Your task to perform on an android device: Open ESPN.com Image 0: 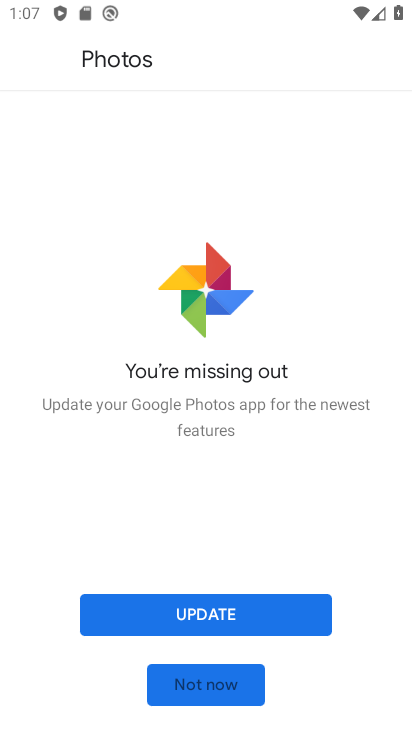
Step 0: press home button
Your task to perform on an android device: Open ESPN.com Image 1: 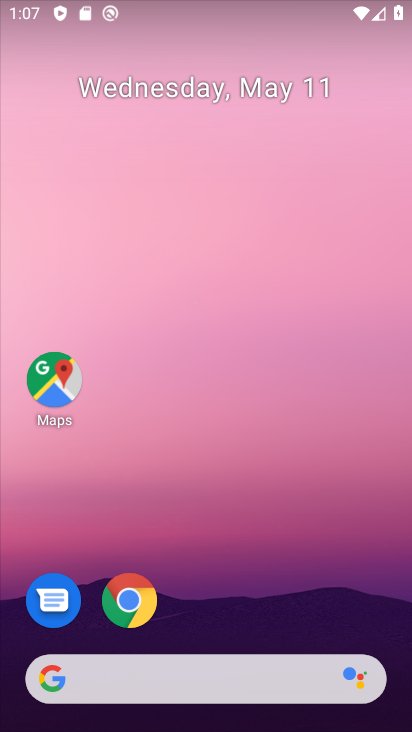
Step 1: drag from (226, 543) to (248, 179)
Your task to perform on an android device: Open ESPN.com Image 2: 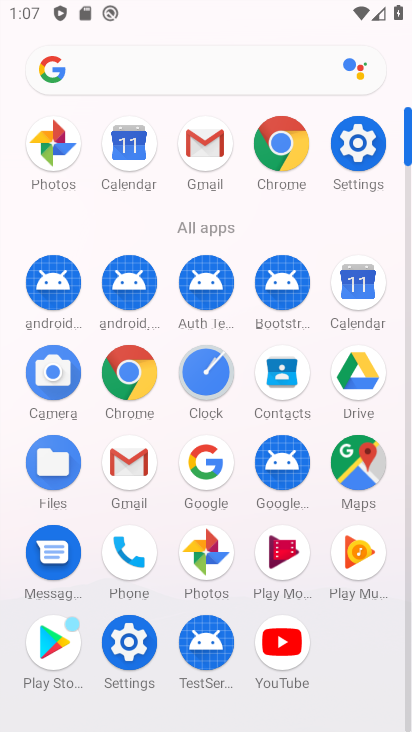
Step 2: click (276, 131)
Your task to perform on an android device: Open ESPN.com Image 3: 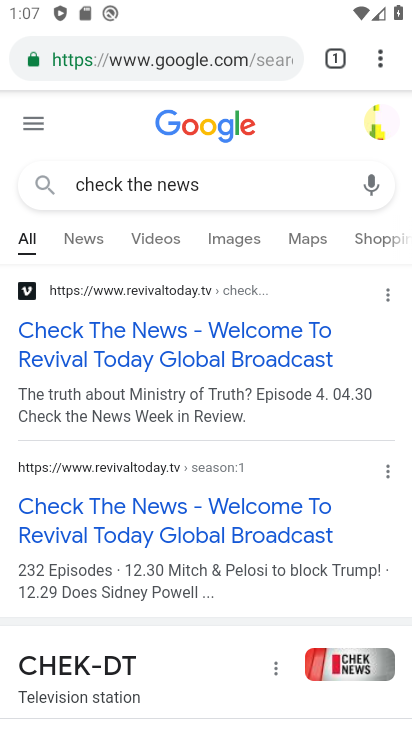
Step 3: click (358, 53)
Your task to perform on an android device: Open ESPN.com Image 4: 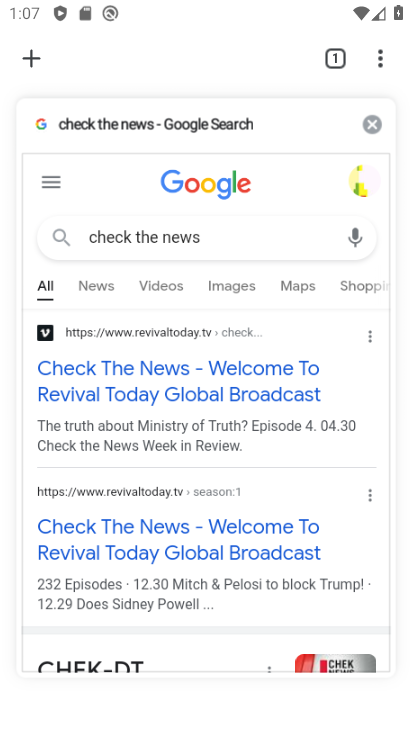
Step 4: click (38, 58)
Your task to perform on an android device: Open ESPN.com Image 5: 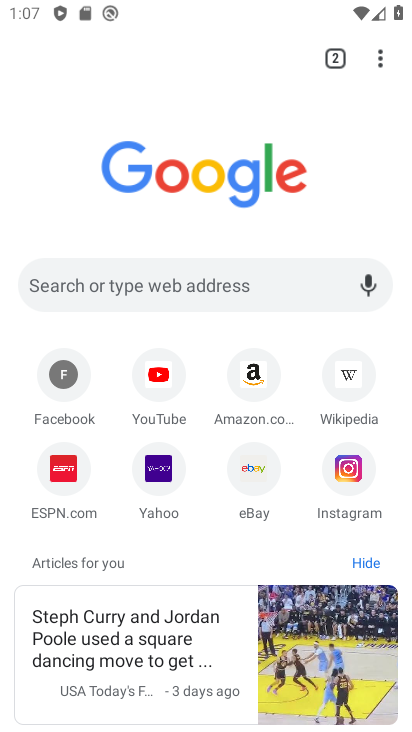
Step 5: click (52, 460)
Your task to perform on an android device: Open ESPN.com Image 6: 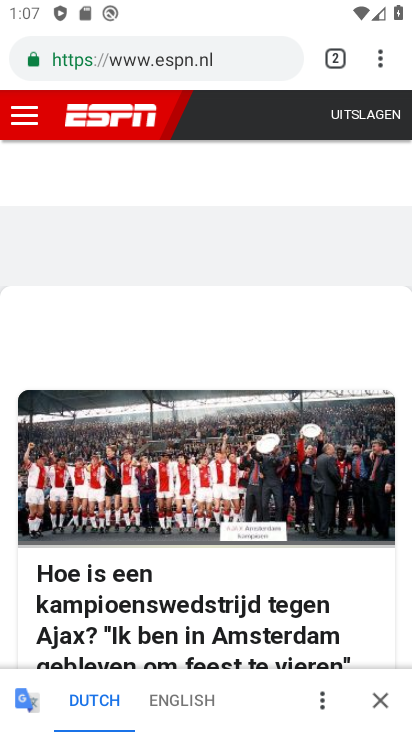
Step 6: task complete